Your task to perform on an android device: Show me recent news Image 0: 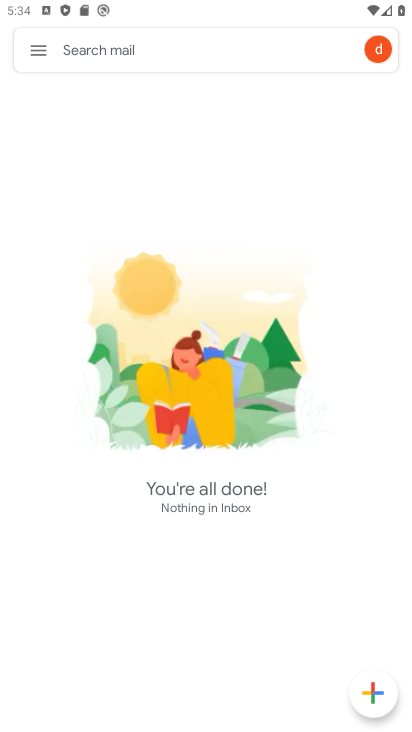
Step 0: press home button
Your task to perform on an android device: Show me recent news Image 1: 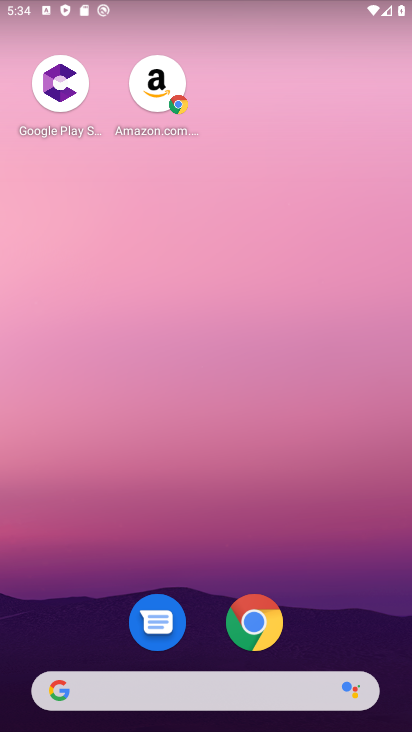
Step 1: drag from (184, 711) to (116, 31)
Your task to perform on an android device: Show me recent news Image 2: 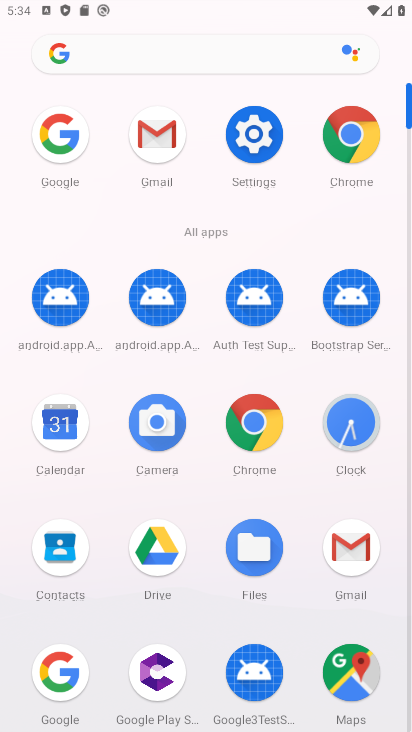
Step 2: click (248, 414)
Your task to perform on an android device: Show me recent news Image 3: 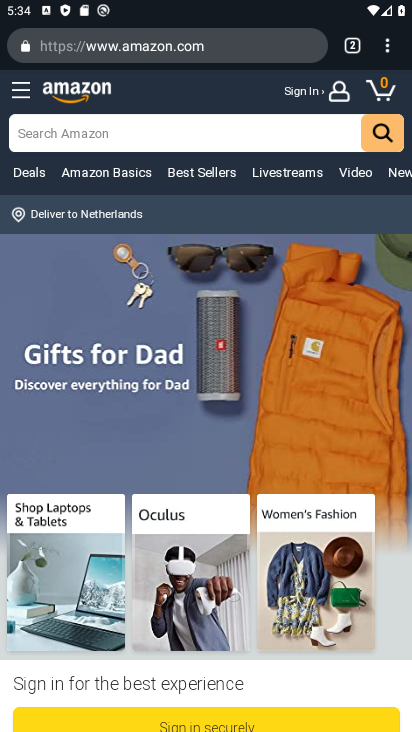
Step 3: click (138, 53)
Your task to perform on an android device: Show me recent news Image 4: 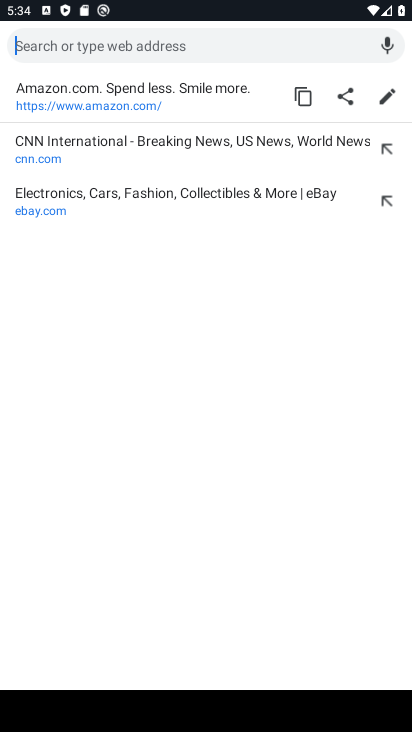
Step 4: type "recent news"
Your task to perform on an android device: Show me recent news Image 5: 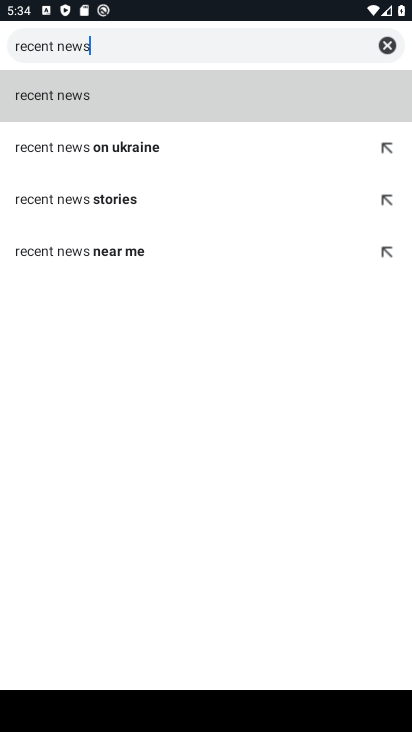
Step 5: click (103, 97)
Your task to perform on an android device: Show me recent news Image 6: 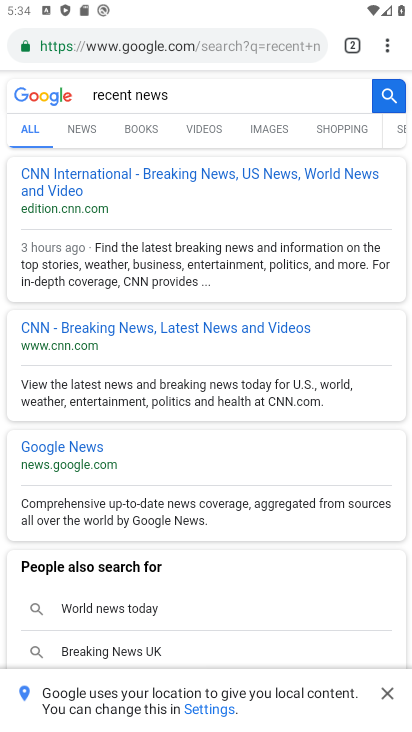
Step 6: task complete